Your task to perform on an android device: Find coffee shops on Maps Image 0: 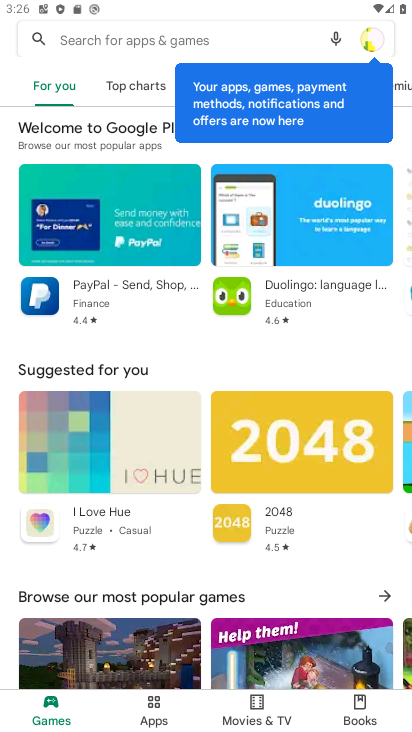
Step 0: press home button
Your task to perform on an android device: Find coffee shops on Maps Image 1: 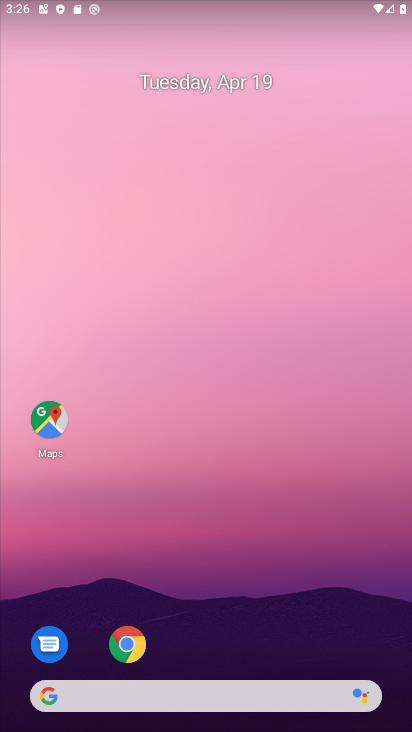
Step 1: drag from (291, 230) to (286, 155)
Your task to perform on an android device: Find coffee shops on Maps Image 2: 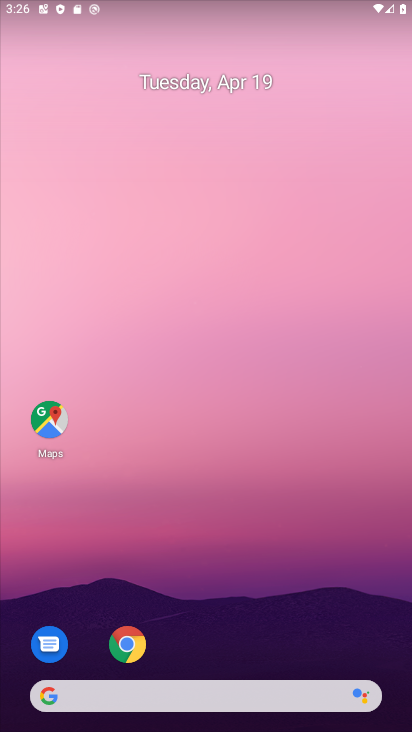
Step 2: click (41, 419)
Your task to perform on an android device: Find coffee shops on Maps Image 3: 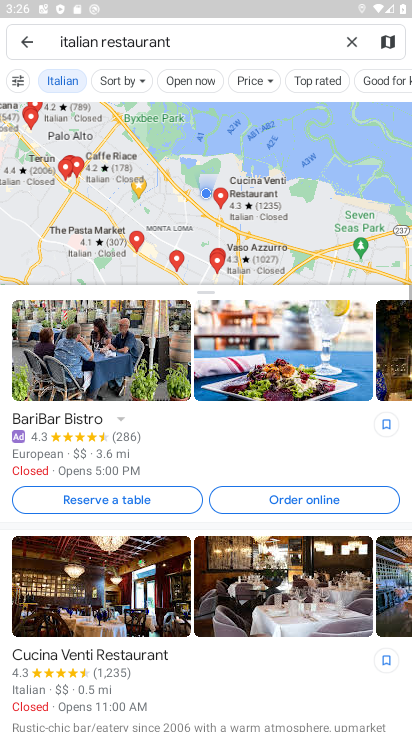
Step 3: click (351, 41)
Your task to perform on an android device: Find coffee shops on Maps Image 4: 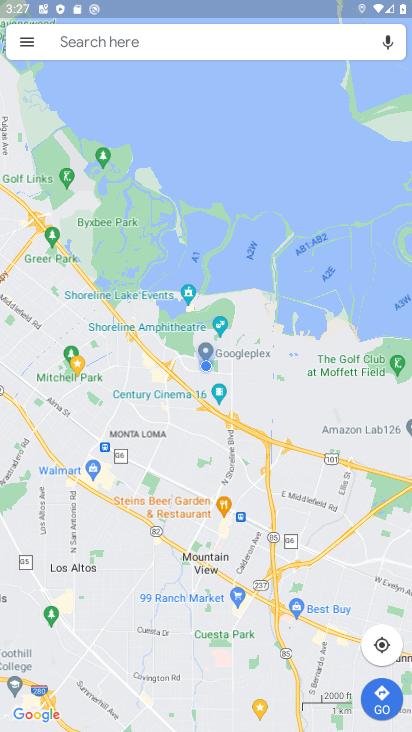
Step 4: click (87, 38)
Your task to perform on an android device: Find coffee shops on Maps Image 5: 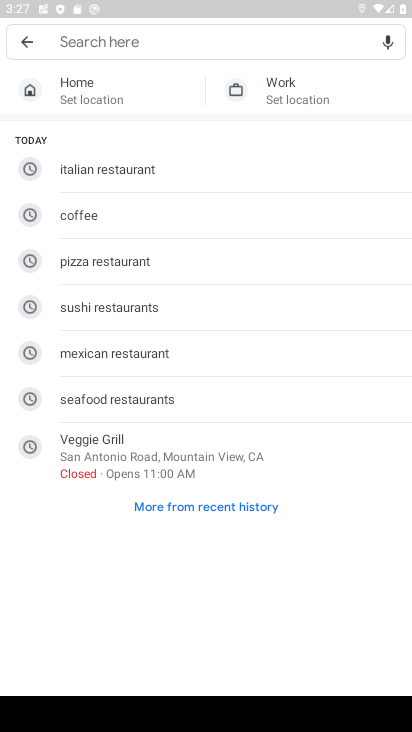
Step 5: type "coffee shops"
Your task to perform on an android device: Find coffee shops on Maps Image 6: 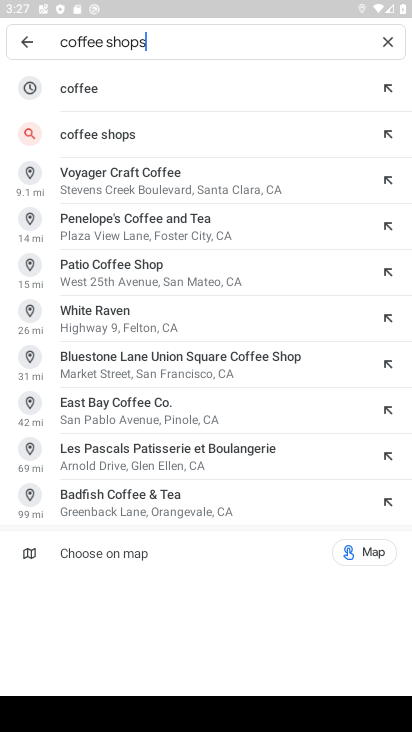
Step 6: click (108, 126)
Your task to perform on an android device: Find coffee shops on Maps Image 7: 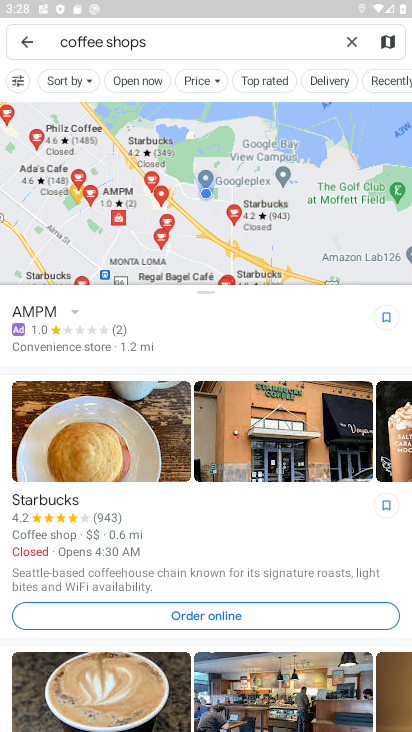
Step 7: task complete